Your task to perform on an android device: check out phone information Image 0: 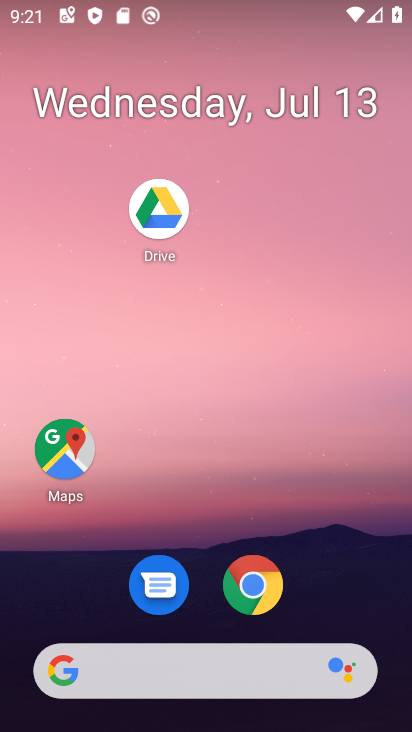
Step 0: press home button
Your task to perform on an android device: check out phone information Image 1: 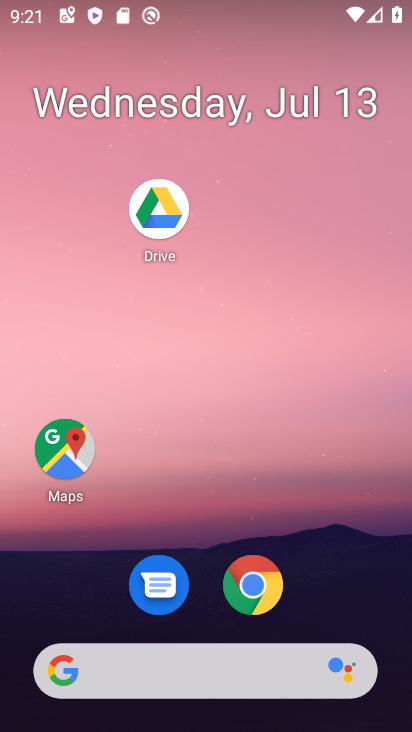
Step 1: drag from (180, 671) to (319, 120)
Your task to perform on an android device: check out phone information Image 2: 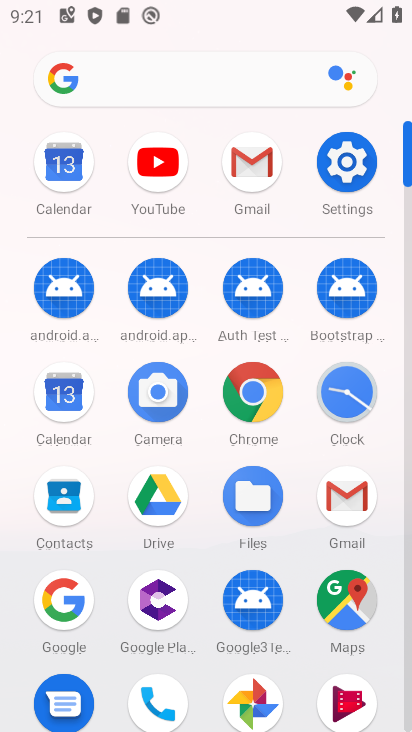
Step 2: click (355, 155)
Your task to perform on an android device: check out phone information Image 3: 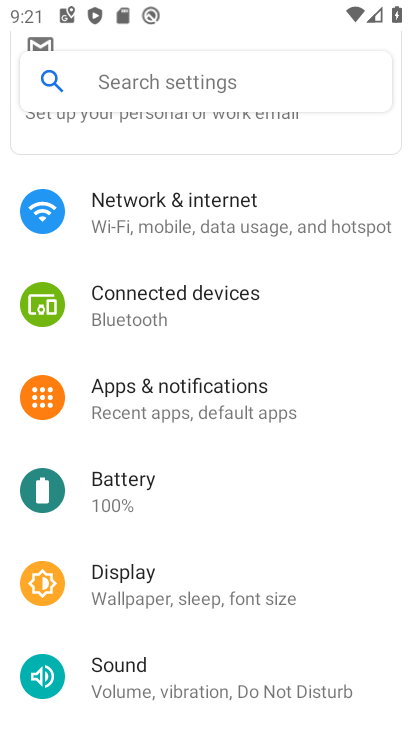
Step 3: drag from (268, 650) to (392, 115)
Your task to perform on an android device: check out phone information Image 4: 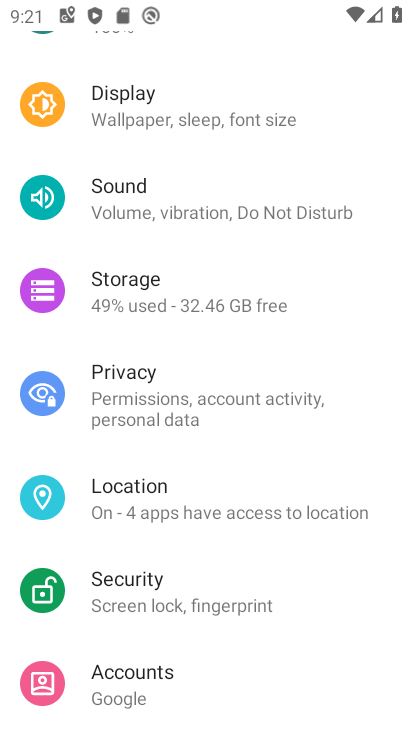
Step 4: drag from (255, 646) to (410, 30)
Your task to perform on an android device: check out phone information Image 5: 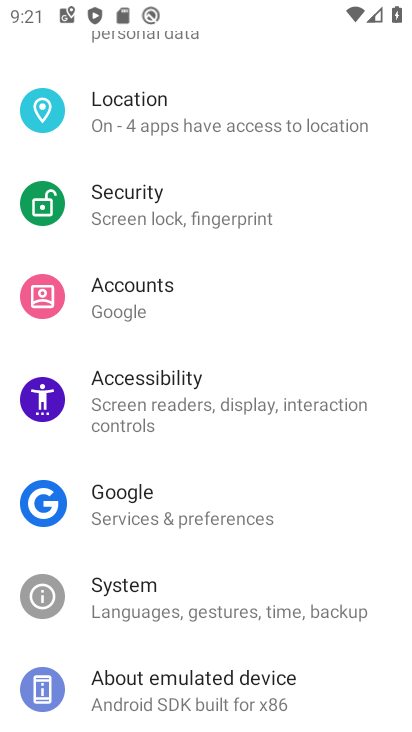
Step 5: click (198, 684)
Your task to perform on an android device: check out phone information Image 6: 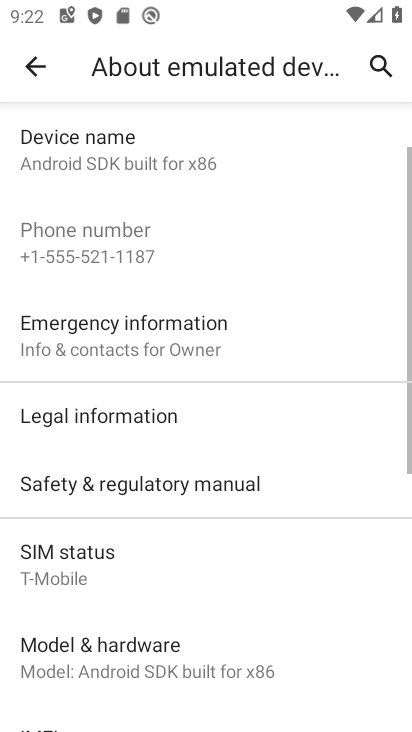
Step 6: task complete